Your task to perform on an android device: find snoozed emails in the gmail app Image 0: 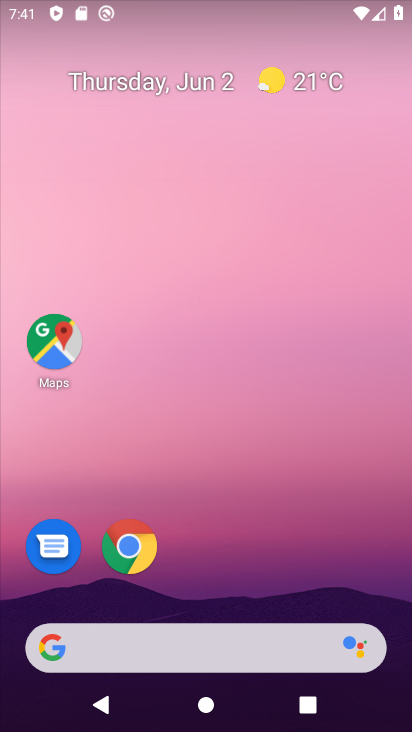
Step 0: drag from (280, 378) to (269, 200)
Your task to perform on an android device: find snoozed emails in the gmail app Image 1: 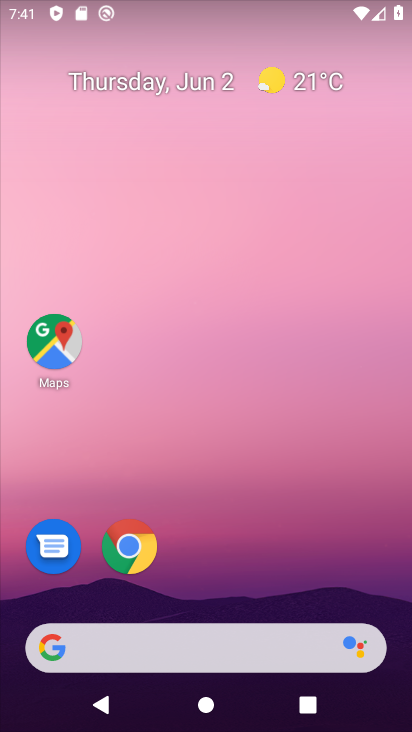
Step 1: drag from (321, 536) to (291, 94)
Your task to perform on an android device: find snoozed emails in the gmail app Image 2: 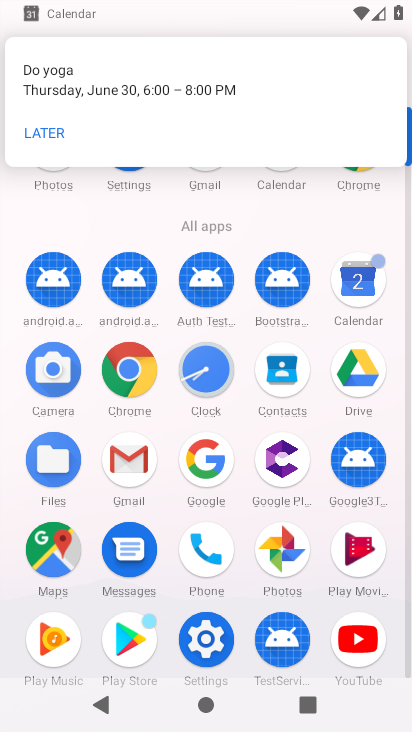
Step 2: click (124, 463)
Your task to perform on an android device: find snoozed emails in the gmail app Image 3: 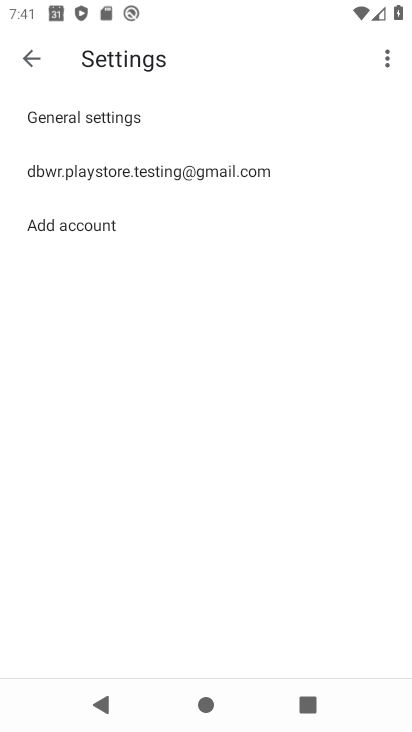
Step 3: click (233, 163)
Your task to perform on an android device: find snoozed emails in the gmail app Image 4: 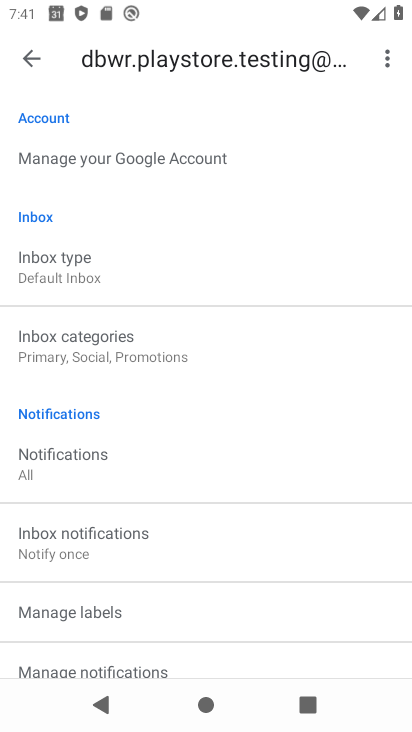
Step 4: drag from (182, 620) to (220, 398)
Your task to perform on an android device: find snoozed emails in the gmail app Image 5: 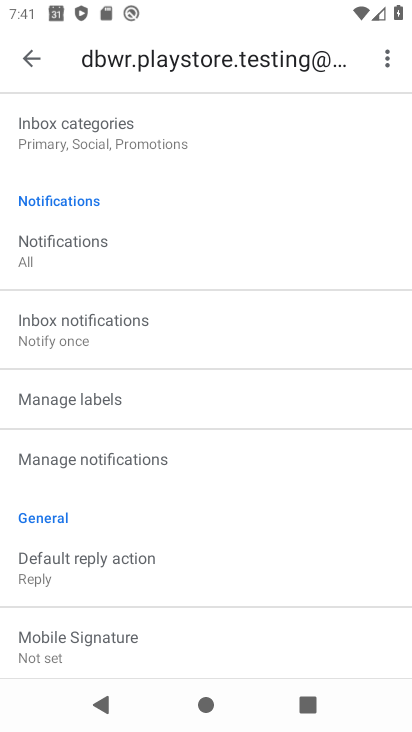
Step 5: drag from (231, 556) to (237, 343)
Your task to perform on an android device: find snoozed emails in the gmail app Image 6: 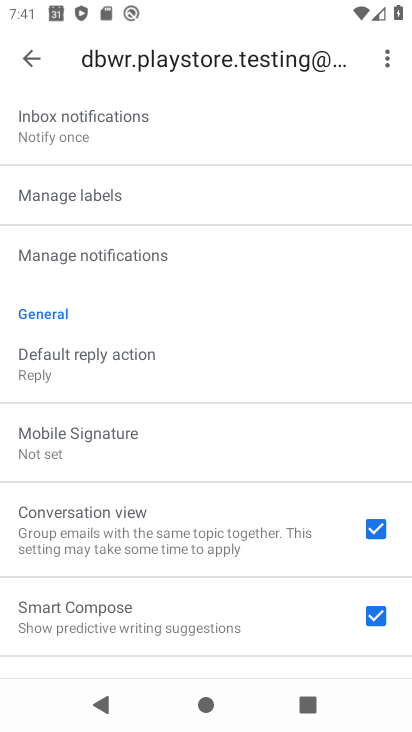
Step 6: drag from (238, 187) to (249, 492)
Your task to perform on an android device: find snoozed emails in the gmail app Image 7: 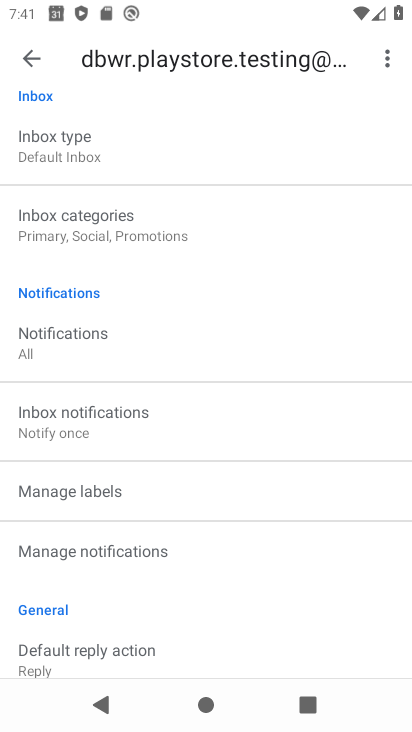
Step 7: click (26, 42)
Your task to perform on an android device: find snoozed emails in the gmail app Image 8: 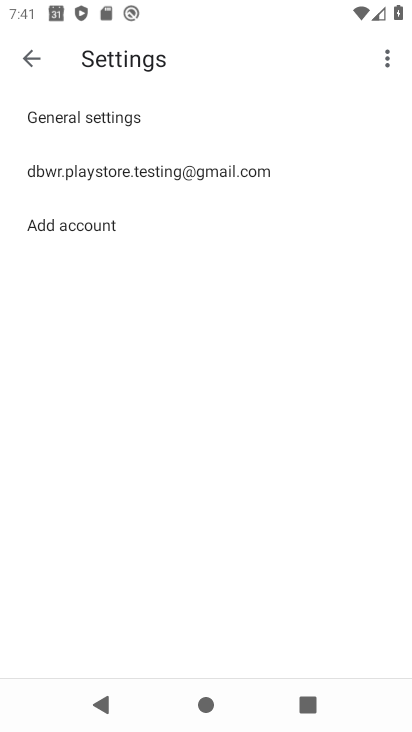
Step 8: click (33, 56)
Your task to perform on an android device: find snoozed emails in the gmail app Image 9: 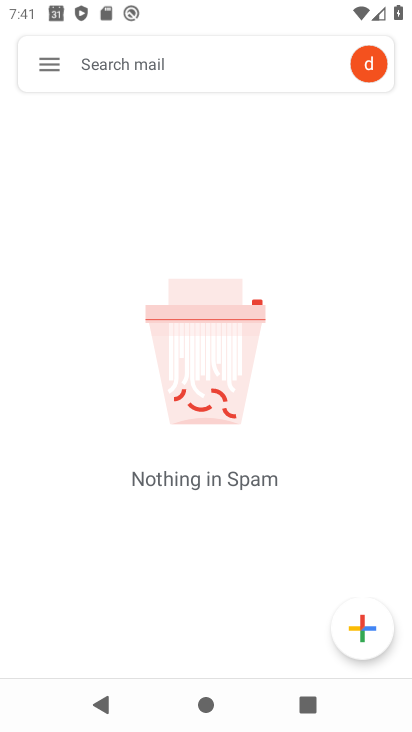
Step 9: click (45, 76)
Your task to perform on an android device: find snoozed emails in the gmail app Image 10: 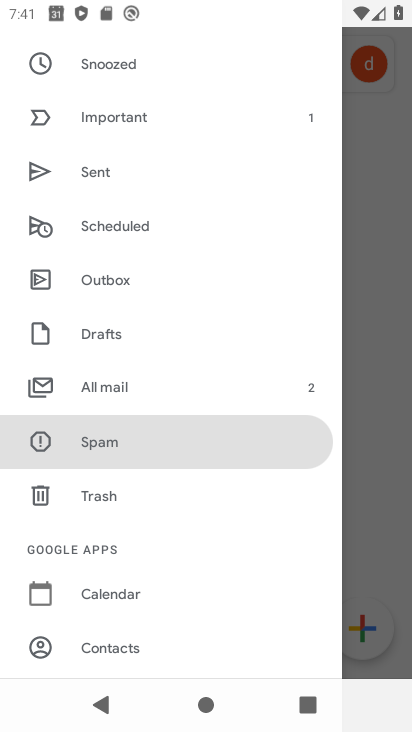
Step 10: drag from (127, 137) to (135, 340)
Your task to perform on an android device: find snoozed emails in the gmail app Image 11: 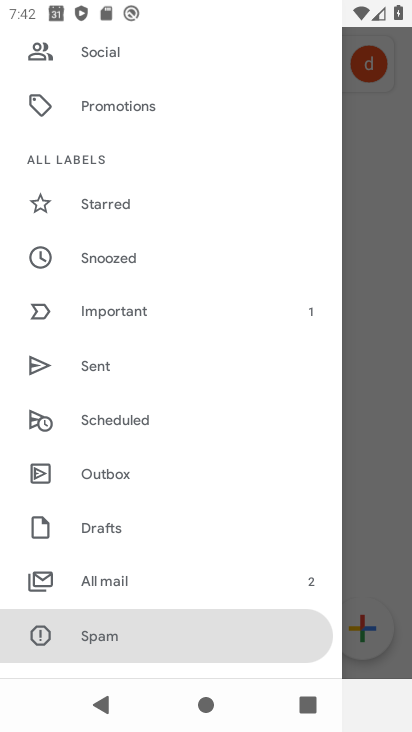
Step 11: click (144, 243)
Your task to perform on an android device: find snoozed emails in the gmail app Image 12: 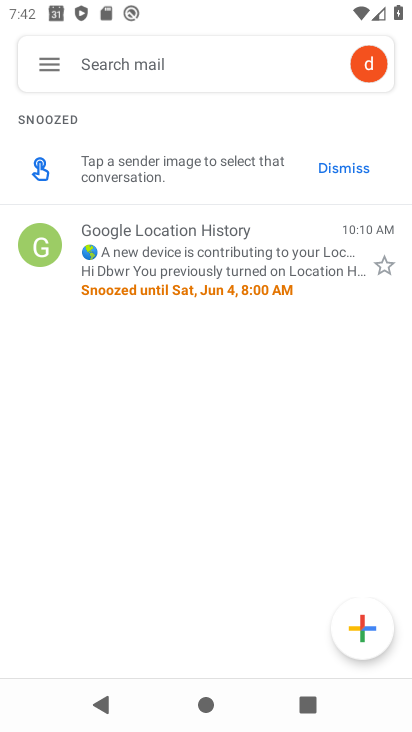
Step 12: task complete